Your task to perform on an android device: Go to Amazon Image 0: 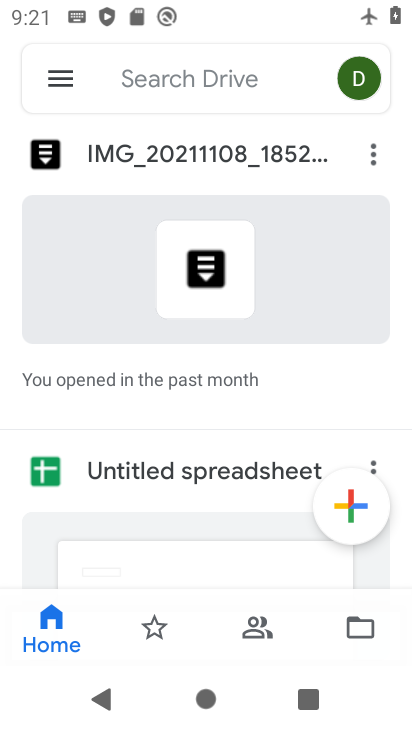
Step 0: drag from (228, 662) to (277, 315)
Your task to perform on an android device: Go to Amazon Image 1: 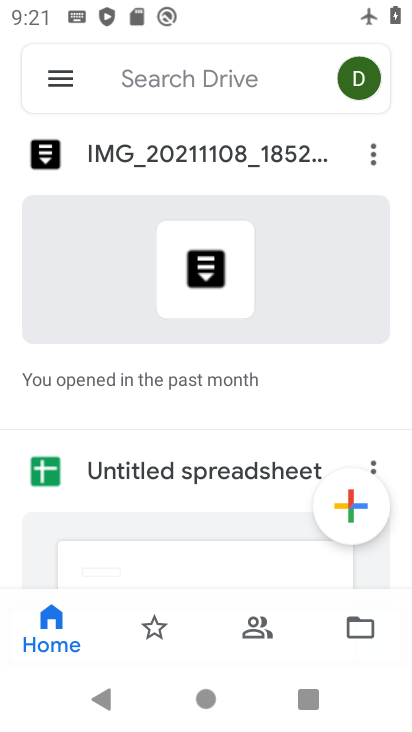
Step 1: press home button
Your task to perform on an android device: Go to Amazon Image 2: 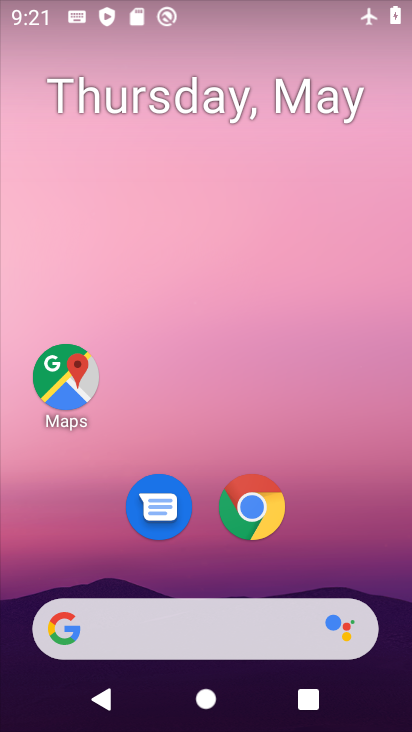
Step 2: drag from (217, 600) to (272, 260)
Your task to perform on an android device: Go to Amazon Image 3: 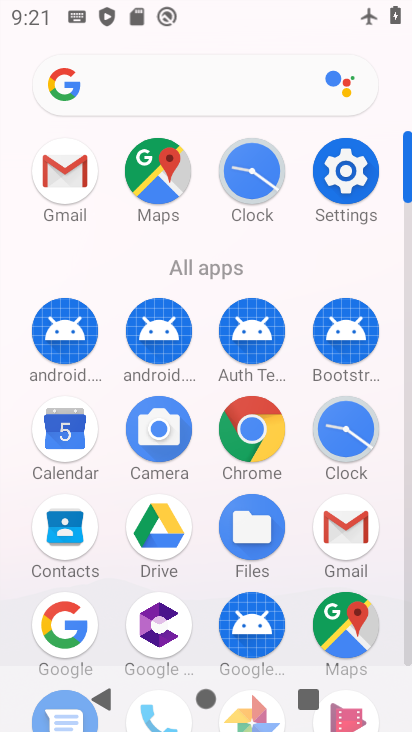
Step 3: drag from (286, 529) to (326, 131)
Your task to perform on an android device: Go to Amazon Image 4: 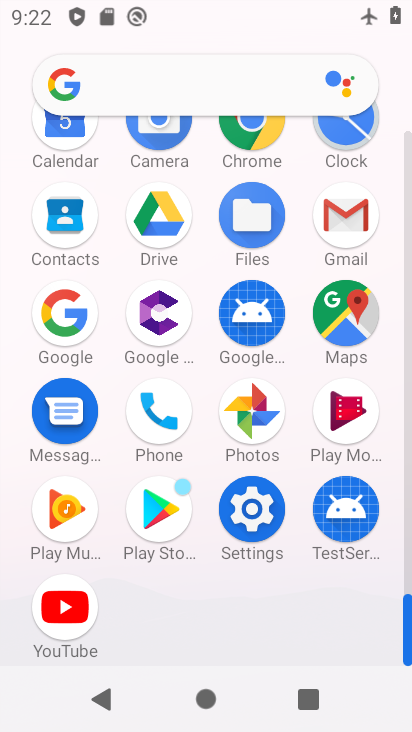
Step 4: drag from (255, 356) to (268, 632)
Your task to perform on an android device: Go to Amazon Image 5: 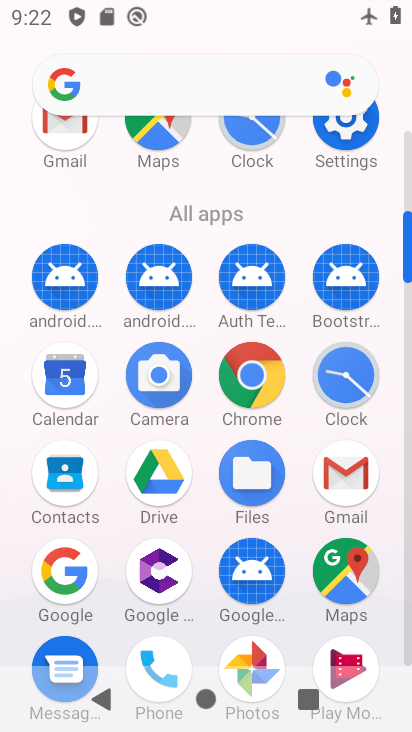
Step 5: click (250, 393)
Your task to perform on an android device: Go to Amazon Image 6: 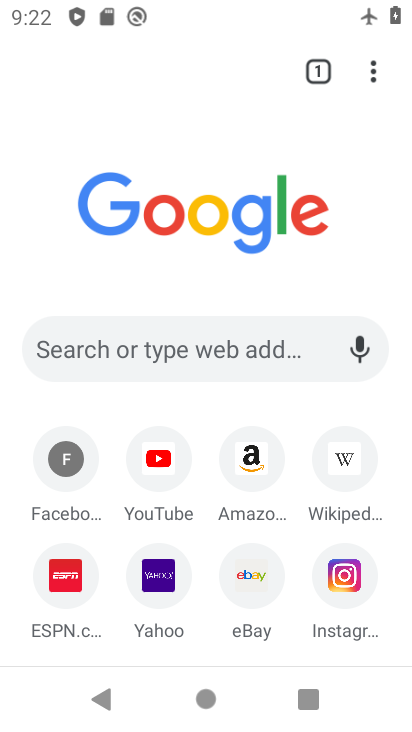
Step 6: click (258, 450)
Your task to perform on an android device: Go to Amazon Image 7: 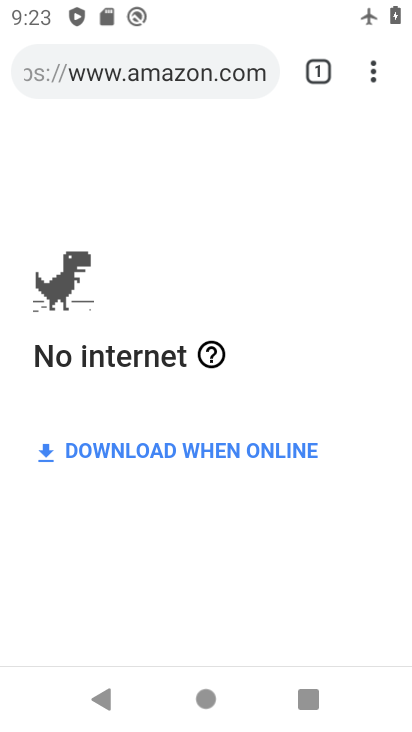
Step 7: task complete